Your task to perform on an android device: Play the last video I watched on Youtube Image 0: 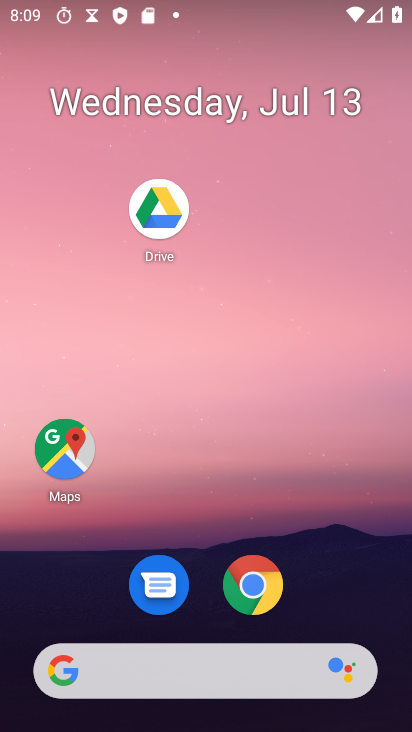
Step 0: drag from (143, 652) to (277, 109)
Your task to perform on an android device: Play the last video I watched on Youtube Image 1: 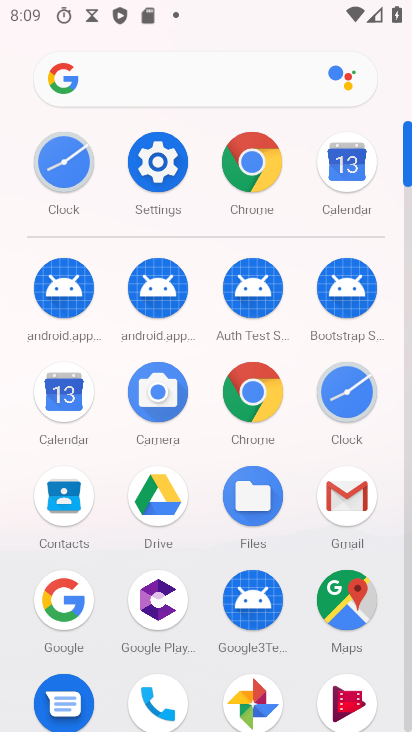
Step 1: drag from (210, 659) to (331, 135)
Your task to perform on an android device: Play the last video I watched on Youtube Image 2: 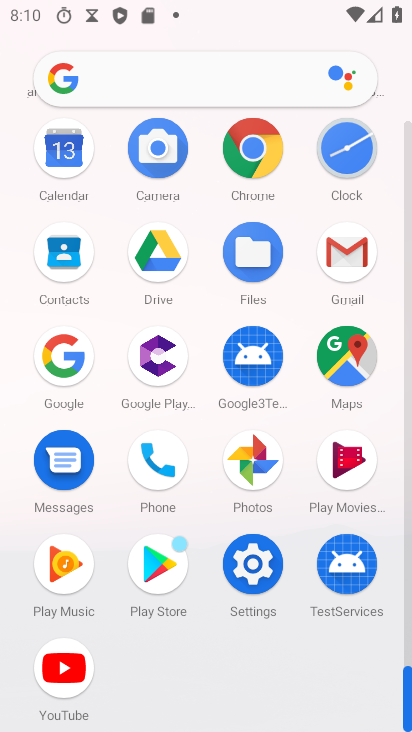
Step 2: click (74, 671)
Your task to perform on an android device: Play the last video I watched on Youtube Image 3: 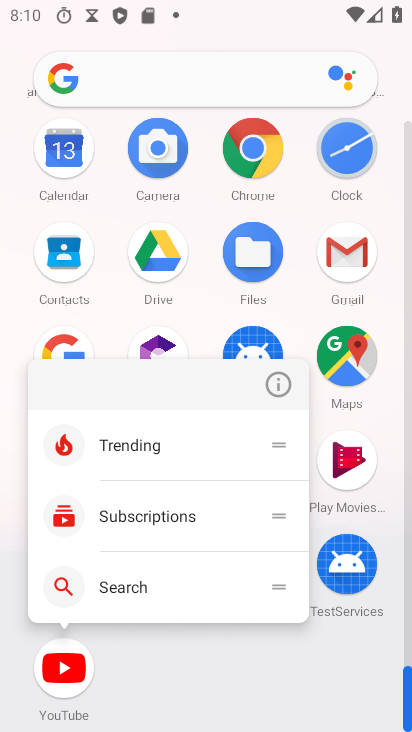
Step 3: click (75, 676)
Your task to perform on an android device: Play the last video I watched on Youtube Image 4: 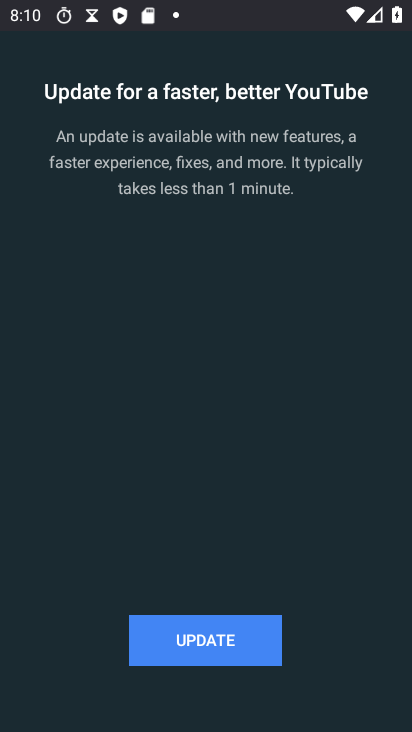
Step 4: click (203, 635)
Your task to perform on an android device: Play the last video I watched on Youtube Image 5: 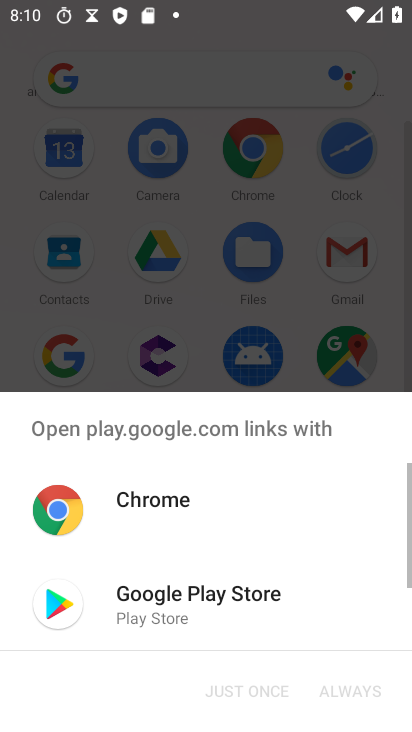
Step 5: click (159, 597)
Your task to perform on an android device: Play the last video I watched on Youtube Image 6: 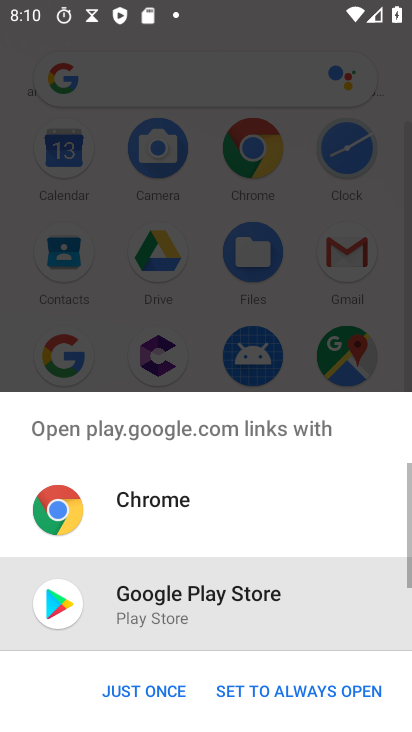
Step 6: click (147, 690)
Your task to perform on an android device: Play the last video I watched on Youtube Image 7: 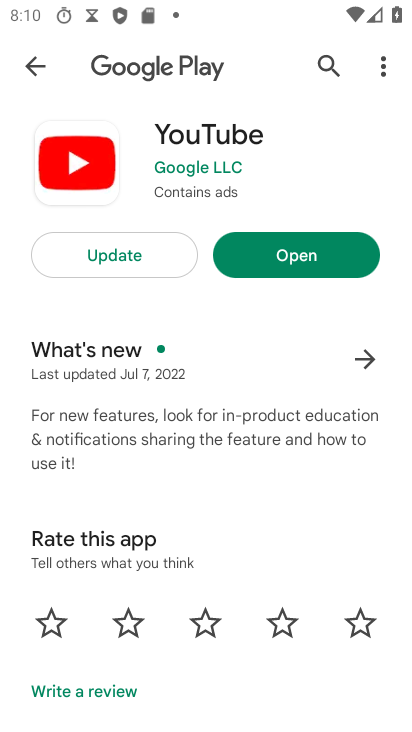
Step 7: click (141, 250)
Your task to perform on an android device: Play the last video I watched on Youtube Image 8: 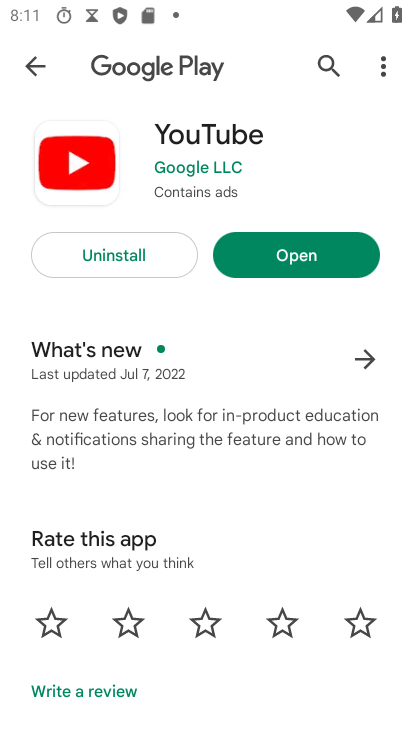
Step 8: click (265, 261)
Your task to perform on an android device: Play the last video I watched on Youtube Image 9: 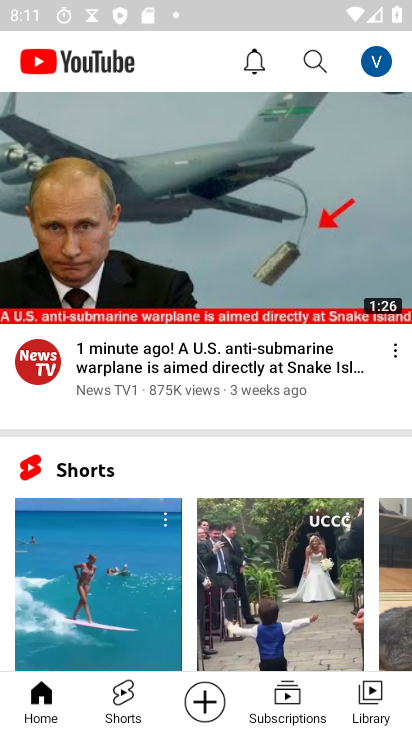
Step 9: click (368, 684)
Your task to perform on an android device: Play the last video I watched on Youtube Image 10: 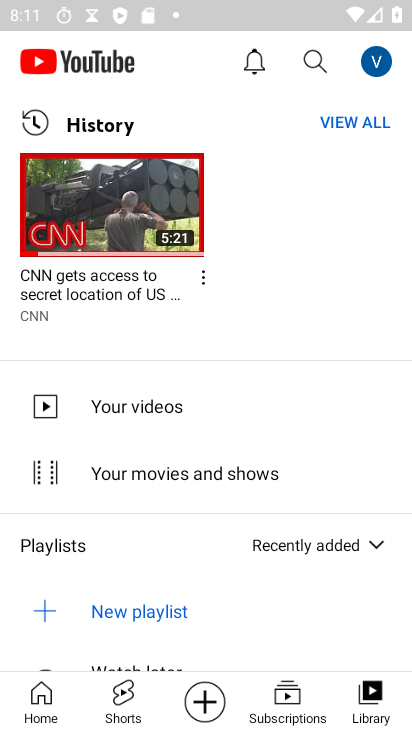
Step 10: click (139, 187)
Your task to perform on an android device: Play the last video I watched on Youtube Image 11: 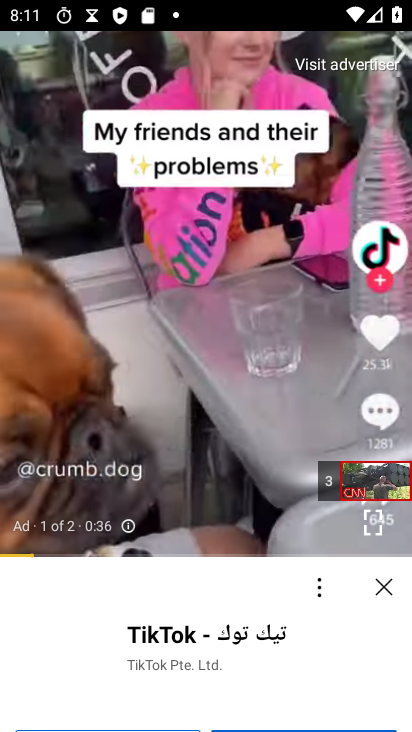
Step 11: click (193, 259)
Your task to perform on an android device: Play the last video I watched on Youtube Image 12: 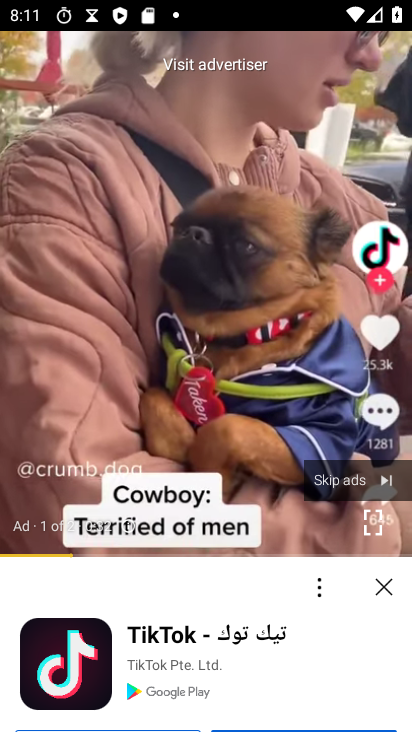
Step 12: click (341, 477)
Your task to perform on an android device: Play the last video I watched on Youtube Image 13: 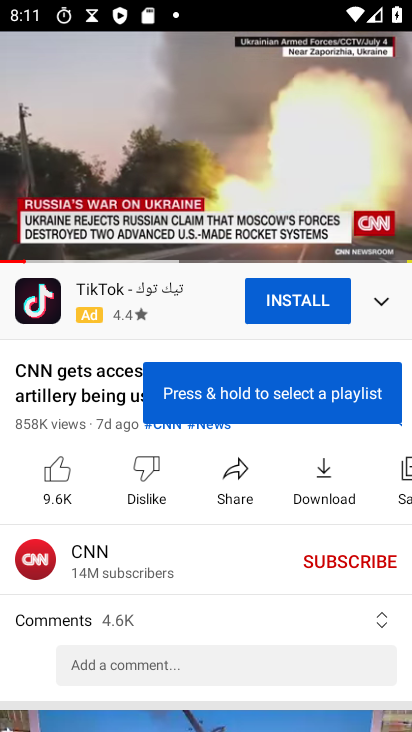
Step 13: click (210, 137)
Your task to perform on an android device: Play the last video I watched on Youtube Image 14: 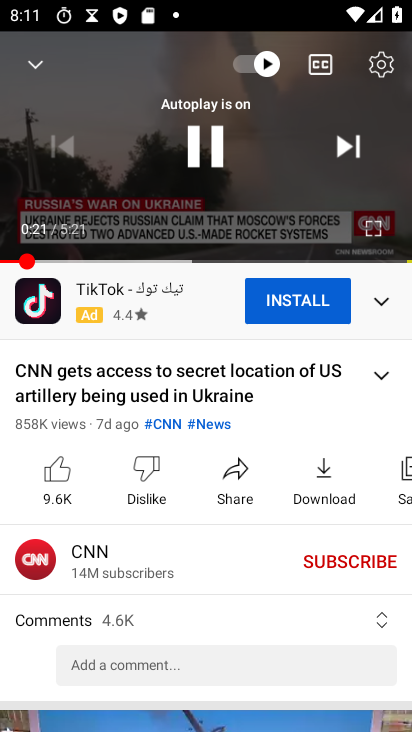
Step 14: click (210, 138)
Your task to perform on an android device: Play the last video I watched on Youtube Image 15: 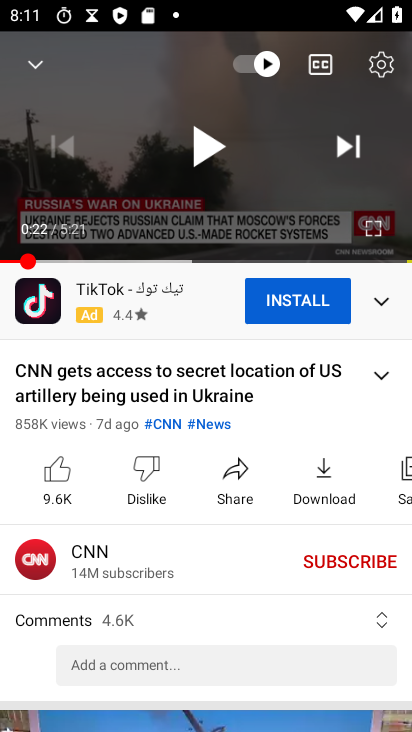
Step 15: task complete